Your task to perform on an android device: check android version Image 0: 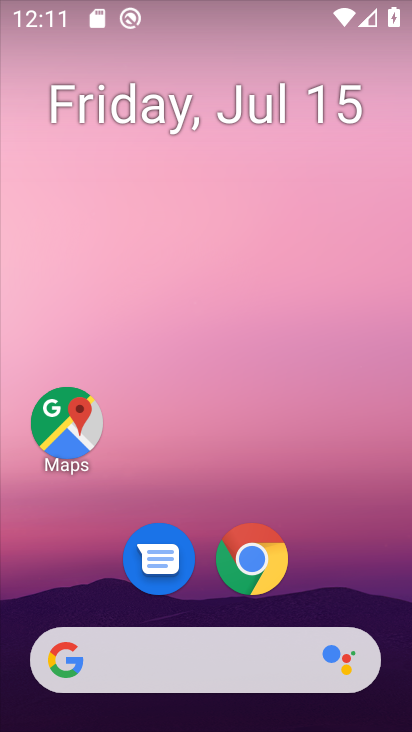
Step 0: drag from (369, 484) to (375, 64)
Your task to perform on an android device: check android version Image 1: 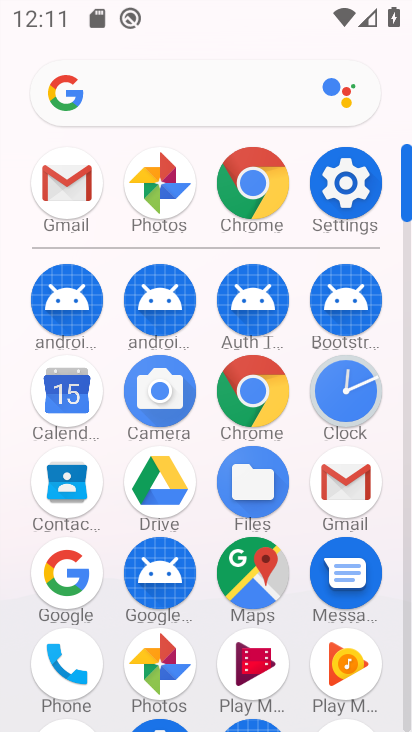
Step 1: click (347, 201)
Your task to perform on an android device: check android version Image 2: 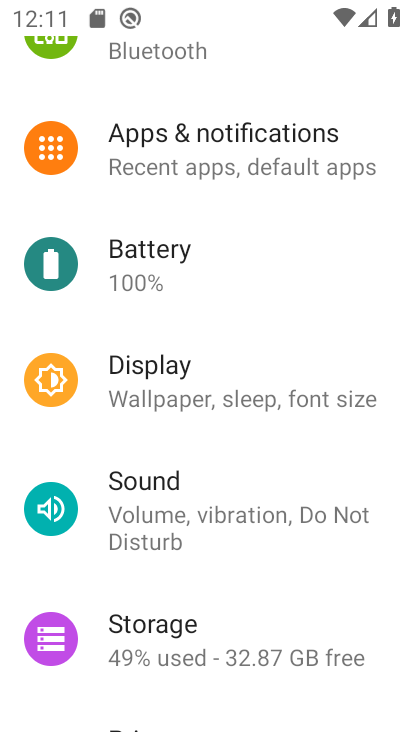
Step 2: drag from (354, 452) to (381, 247)
Your task to perform on an android device: check android version Image 3: 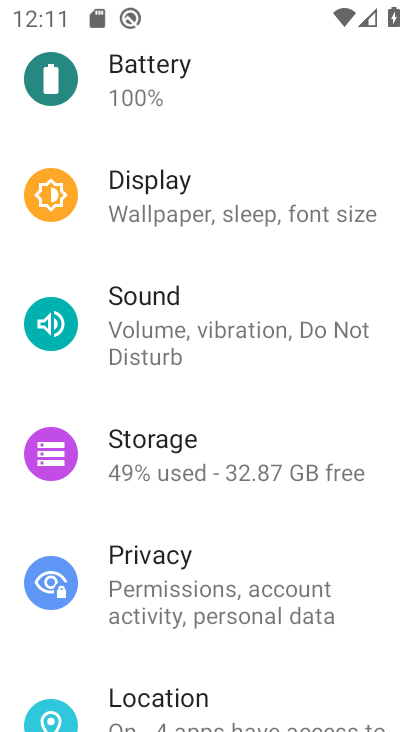
Step 3: drag from (347, 536) to (379, 249)
Your task to perform on an android device: check android version Image 4: 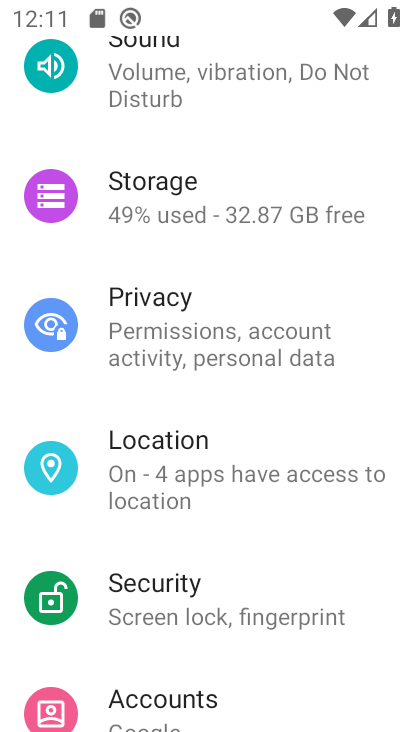
Step 4: drag from (354, 532) to (366, 378)
Your task to perform on an android device: check android version Image 5: 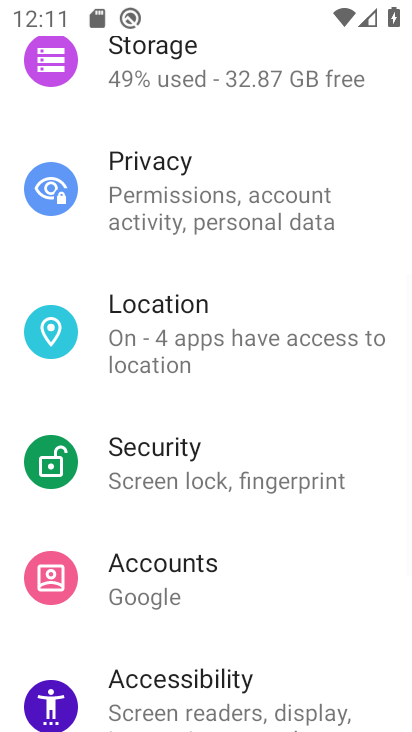
Step 5: drag from (360, 589) to (376, 404)
Your task to perform on an android device: check android version Image 6: 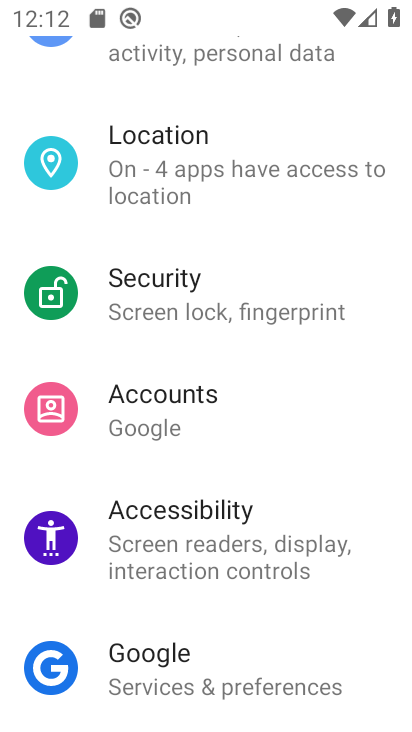
Step 6: drag from (336, 631) to (352, 459)
Your task to perform on an android device: check android version Image 7: 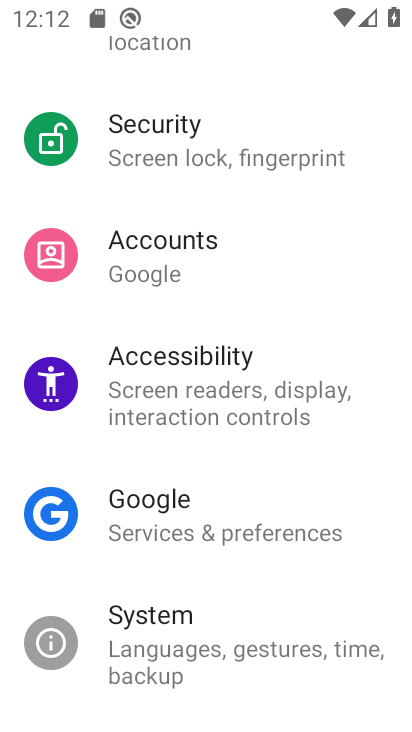
Step 7: drag from (347, 605) to (355, 467)
Your task to perform on an android device: check android version Image 8: 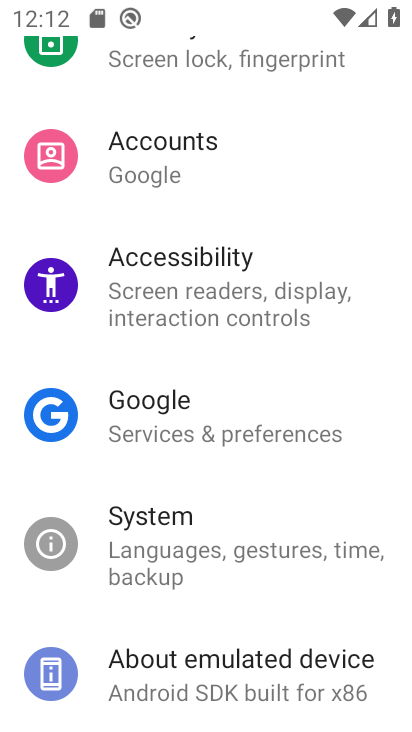
Step 8: click (282, 550)
Your task to perform on an android device: check android version Image 9: 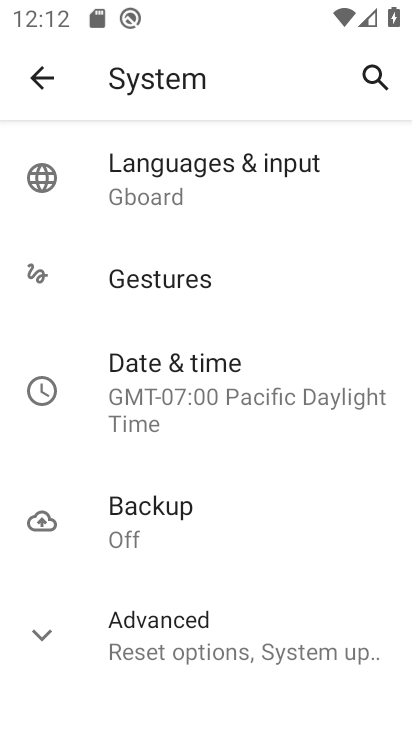
Step 9: drag from (298, 582) to (330, 448)
Your task to perform on an android device: check android version Image 10: 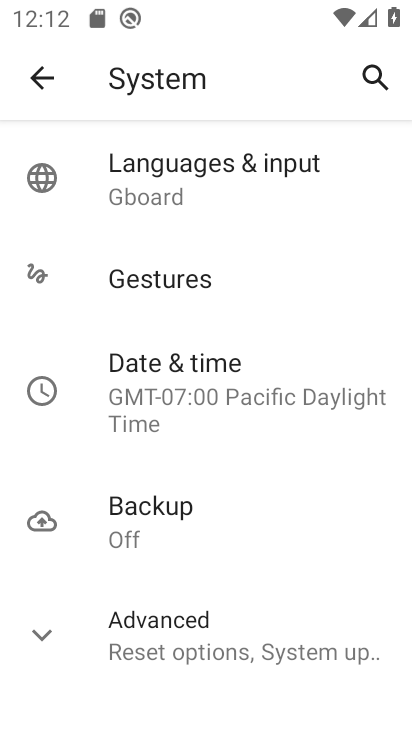
Step 10: click (330, 651)
Your task to perform on an android device: check android version Image 11: 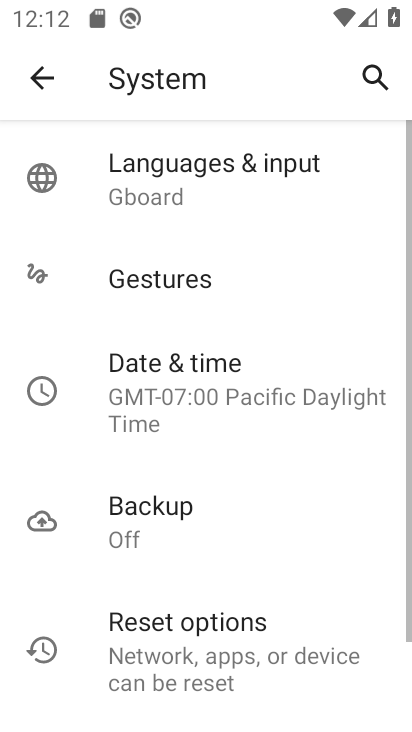
Step 11: drag from (330, 649) to (339, 519)
Your task to perform on an android device: check android version Image 12: 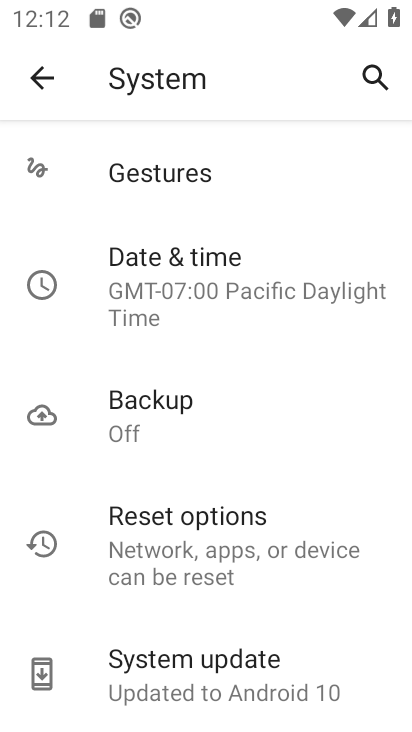
Step 12: click (302, 676)
Your task to perform on an android device: check android version Image 13: 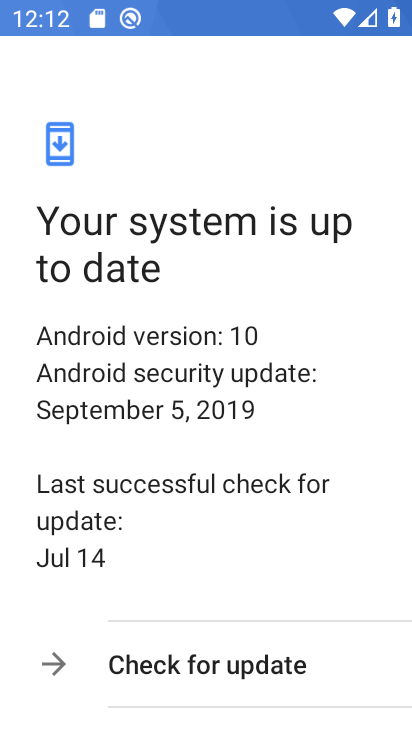
Step 13: task complete